Your task to perform on an android device: visit the assistant section in the google photos Image 0: 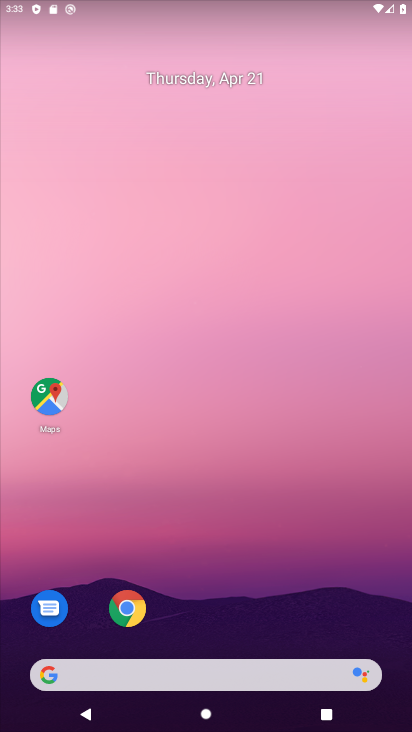
Step 0: click (244, 144)
Your task to perform on an android device: visit the assistant section in the google photos Image 1: 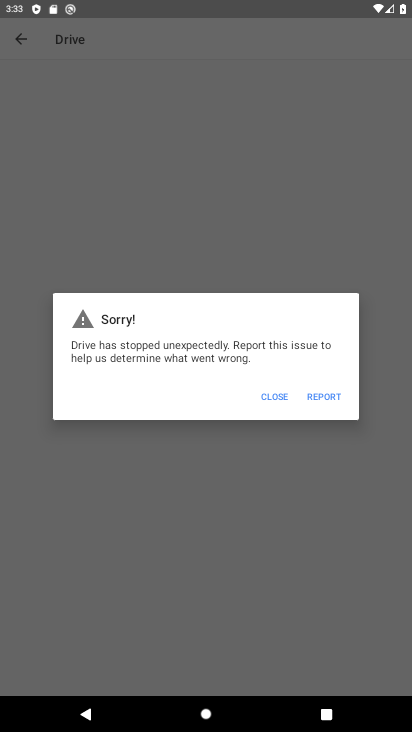
Step 1: drag from (280, 609) to (411, 453)
Your task to perform on an android device: visit the assistant section in the google photos Image 2: 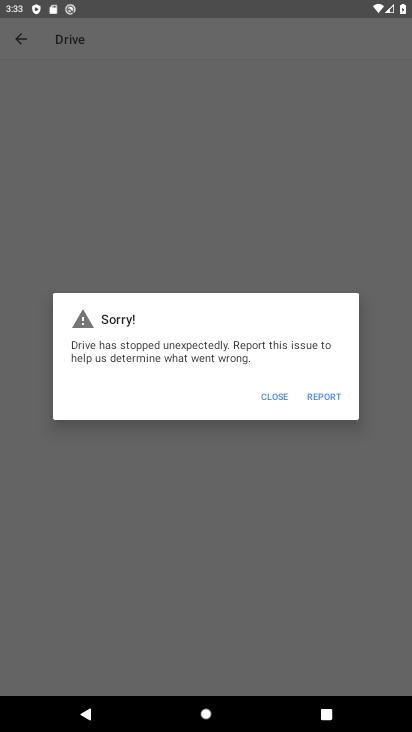
Step 2: press home button
Your task to perform on an android device: visit the assistant section in the google photos Image 3: 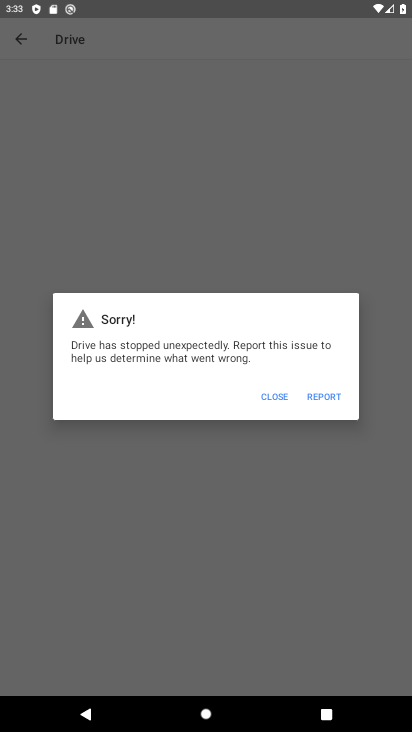
Step 3: drag from (411, 453) to (395, 598)
Your task to perform on an android device: visit the assistant section in the google photos Image 4: 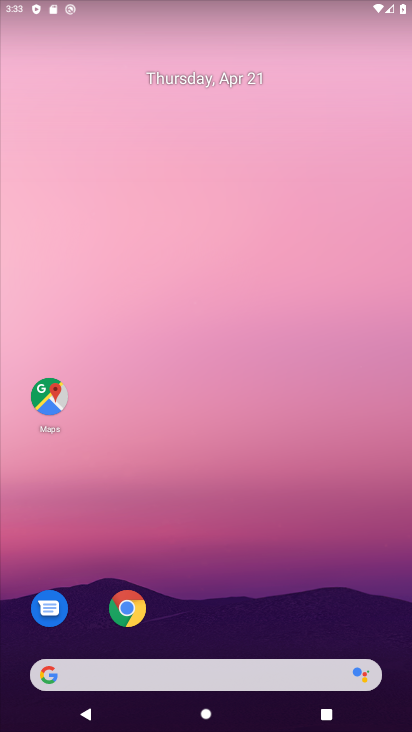
Step 4: drag from (265, 620) to (268, 141)
Your task to perform on an android device: visit the assistant section in the google photos Image 5: 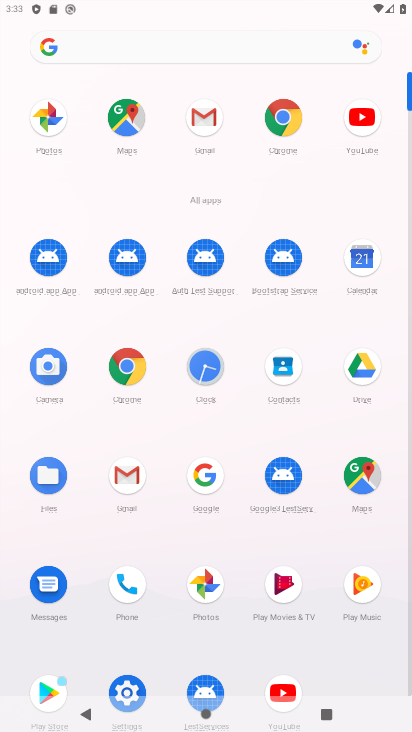
Step 5: click (204, 593)
Your task to perform on an android device: visit the assistant section in the google photos Image 6: 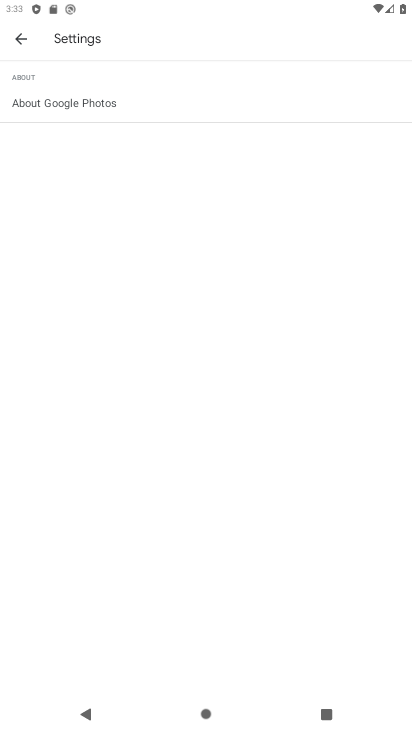
Step 6: press back button
Your task to perform on an android device: visit the assistant section in the google photos Image 7: 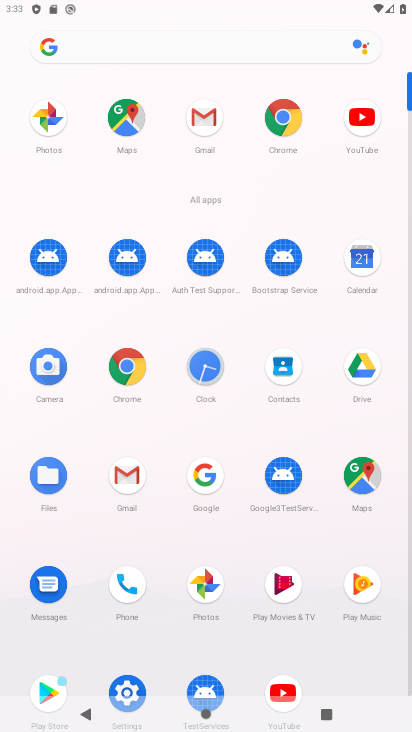
Step 7: click (49, 128)
Your task to perform on an android device: visit the assistant section in the google photos Image 8: 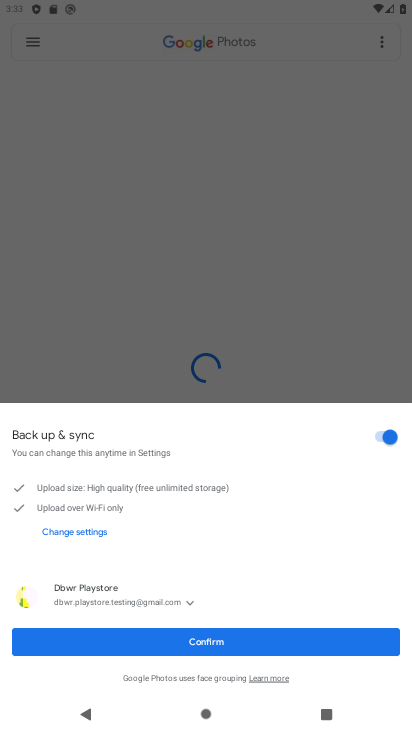
Step 8: click (223, 646)
Your task to perform on an android device: visit the assistant section in the google photos Image 9: 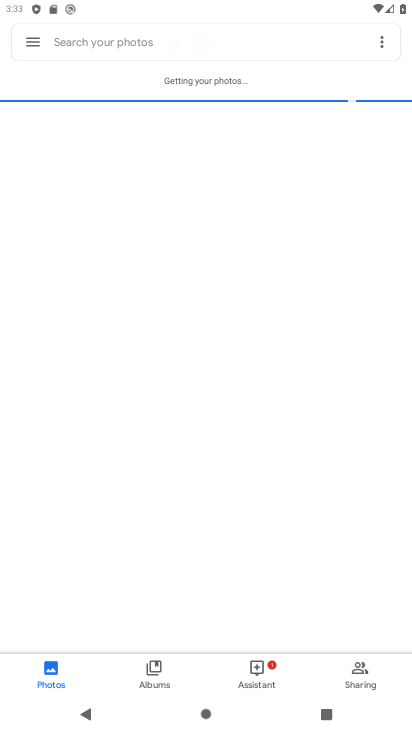
Step 9: click (253, 675)
Your task to perform on an android device: visit the assistant section in the google photos Image 10: 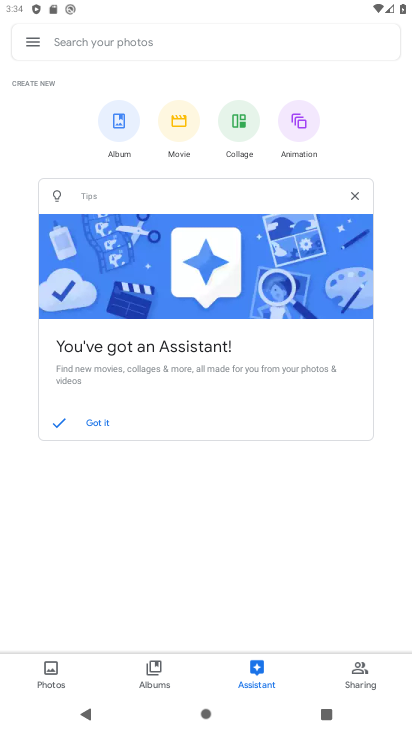
Step 10: task complete